Your task to perform on an android device: Find coffee shops on Maps Image 0: 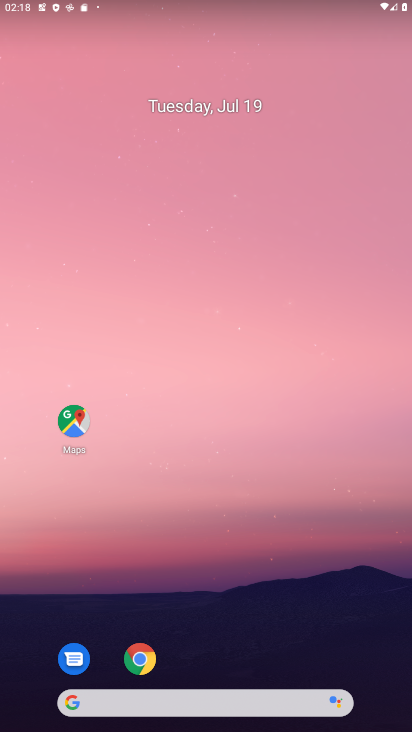
Step 0: press home button
Your task to perform on an android device: Find coffee shops on Maps Image 1: 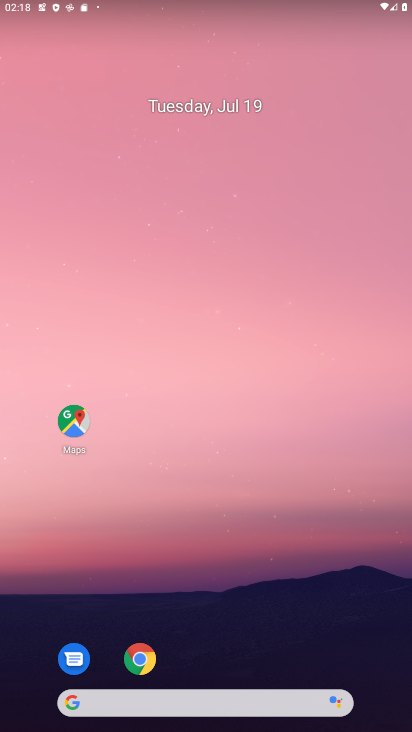
Step 1: click (81, 418)
Your task to perform on an android device: Find coffee shops on Maps Image 2: 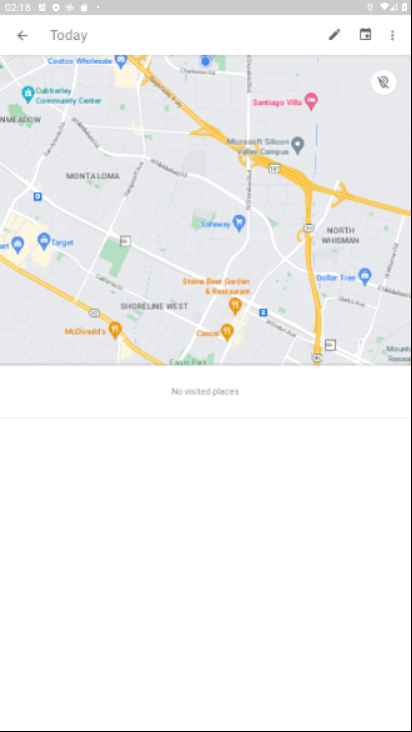
Step 2: drag from (244, 731) to (298, 514)
Your task to perform on an android device: Find coffee shops on Maps Image 3: 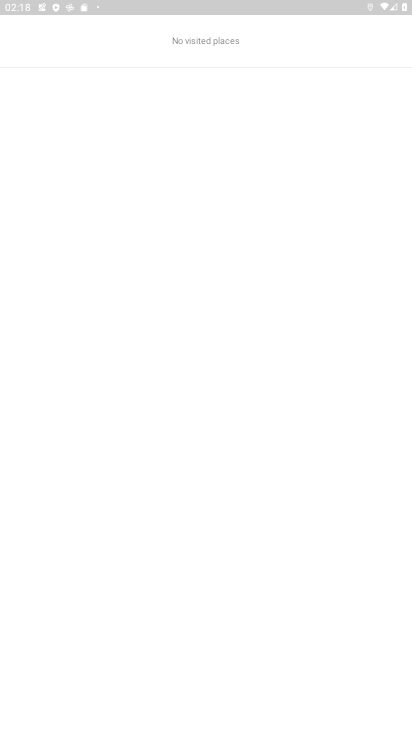
Step 3: click (21, 22)
Your task to perform on an android device: Find coffee shops on Maps Image 4: 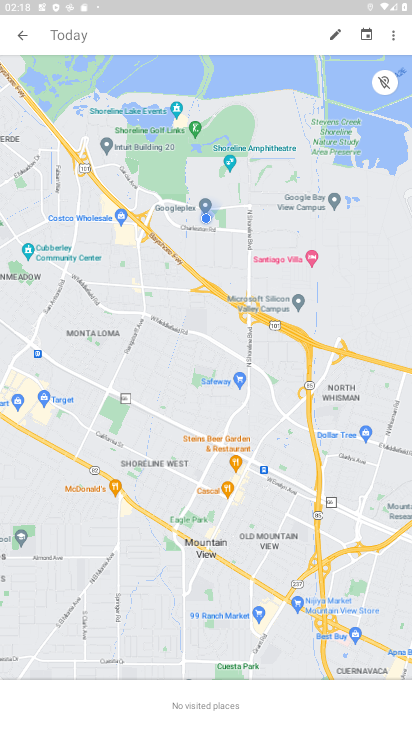
Step 4: press back button
Your task to perform on an android device: Find coffee shops on Maps Image 5: 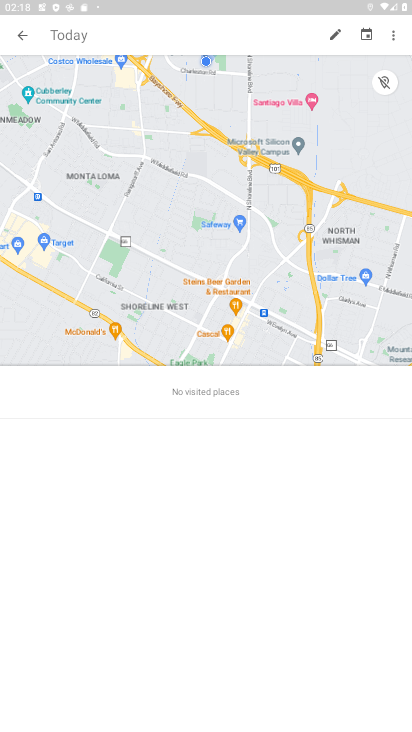
Step 5: press back button
Your task to perform on an android device: Find coffee shops on Maps Image 6: 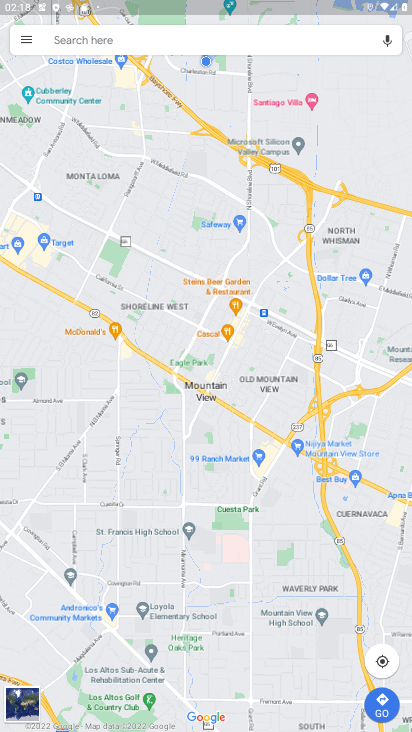
Step 6: click (185, 39)
Your task to perform on an android device: Find coffee shops on Maps Image 7: 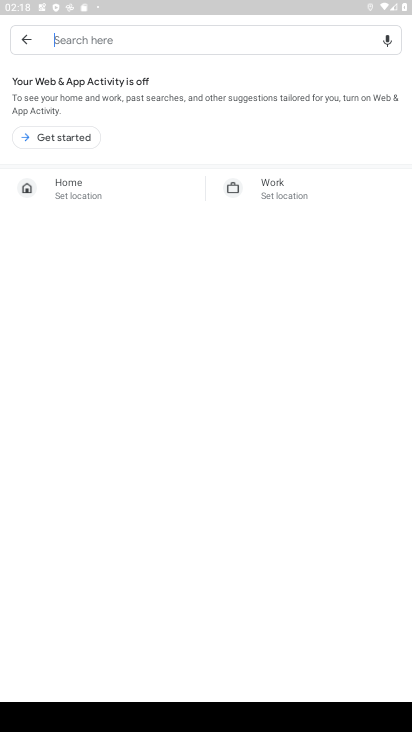
Step 7: type "coffee shops"
Your task to perform on an android device: Find coffee shops on Maps Image 8: 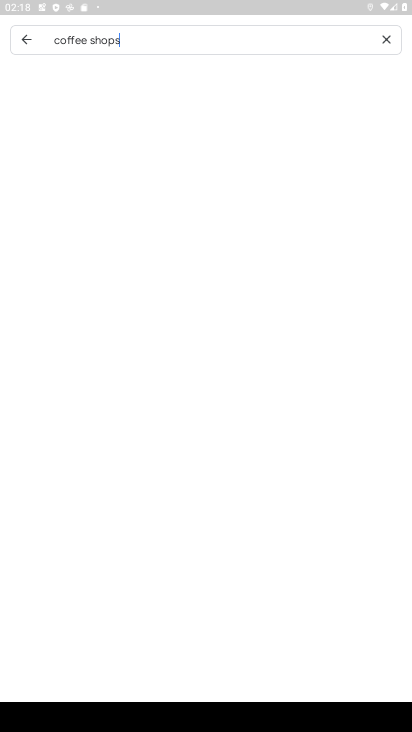
Step 8: type ""
Your task to perform on an android device: Find coffee shops on Maps Image 9: 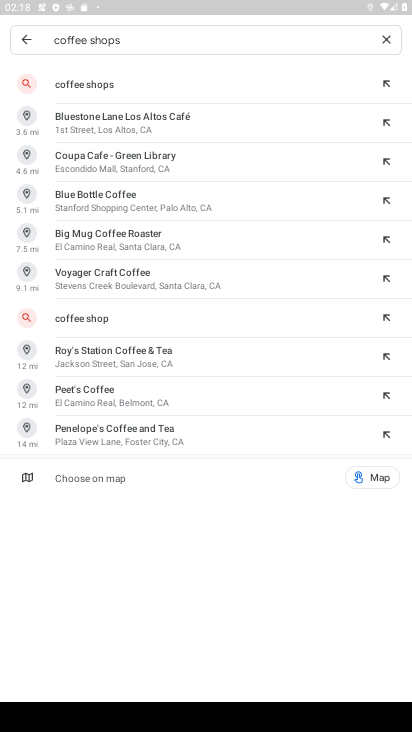
Step 9: click (80, 76)
Your task to perform on an android device: Find coffee shops on Maps Image 10: 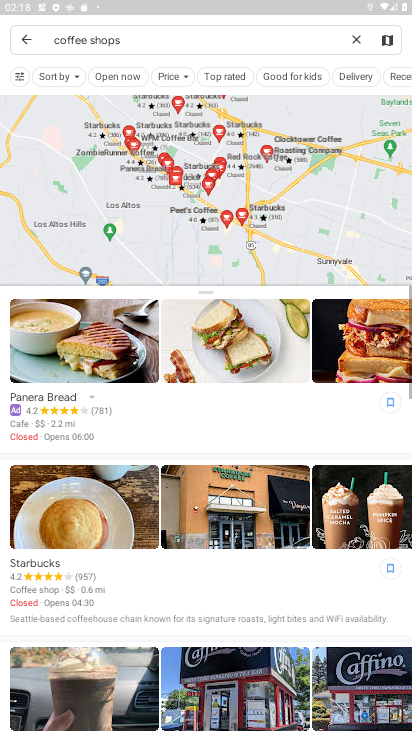
Step 10: task complete